Your task to perform on an android device: turn on sleep mode Image 0: 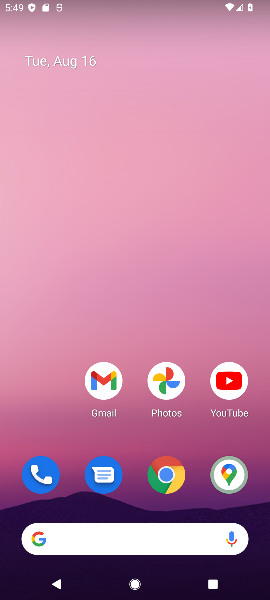
Step 0: drag from (73, 490) to (133, 0)
Your task to perform on an android device: turn on sleep mode Image 1: 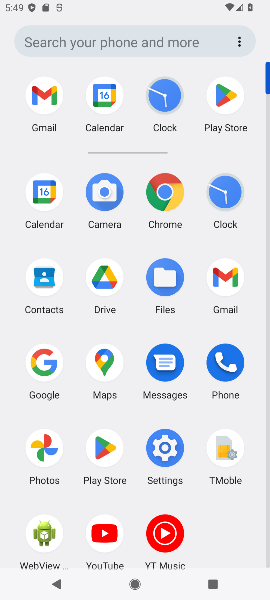
Step 1: task complete